Your task to perform on an android device: add a contact in the contacts app Image 0: 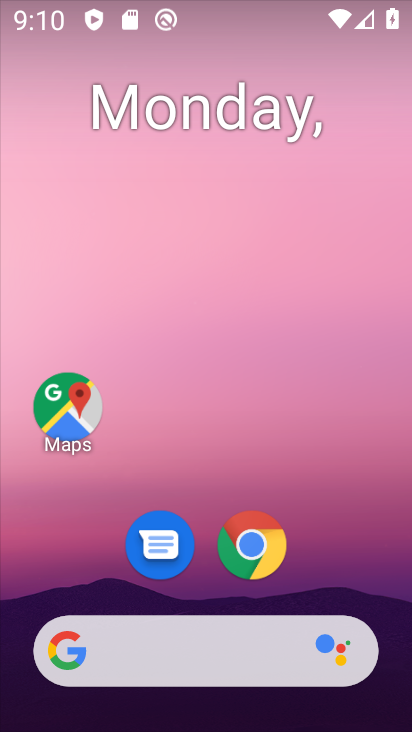
Step 0: drag from (49, 602) to (306, 111)
Your task to perform on an android device: add a contact in the contacts app Image 1: 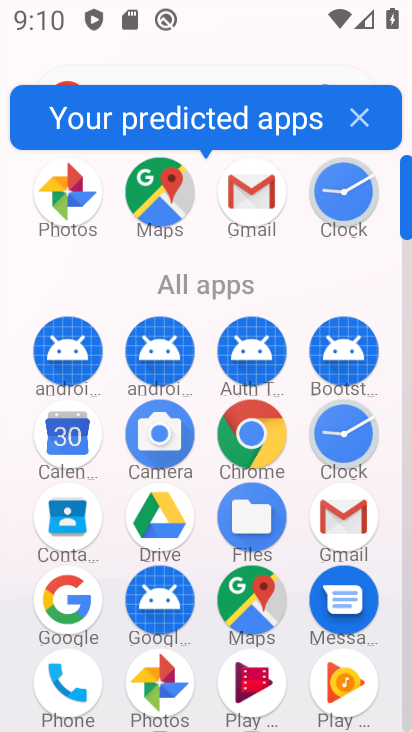
Step 1: click (72, 664)
Your task to perform on an android device: add a contact in the contacts app Image 2: 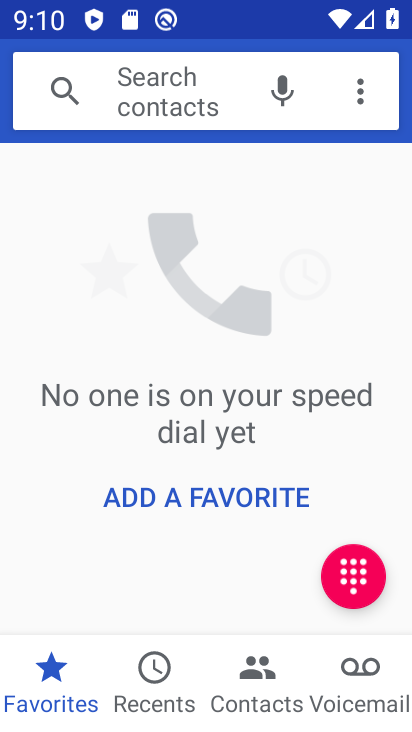
Step 2: task complete